Your task to perform on an android device: Open the stopwatch Image 0: 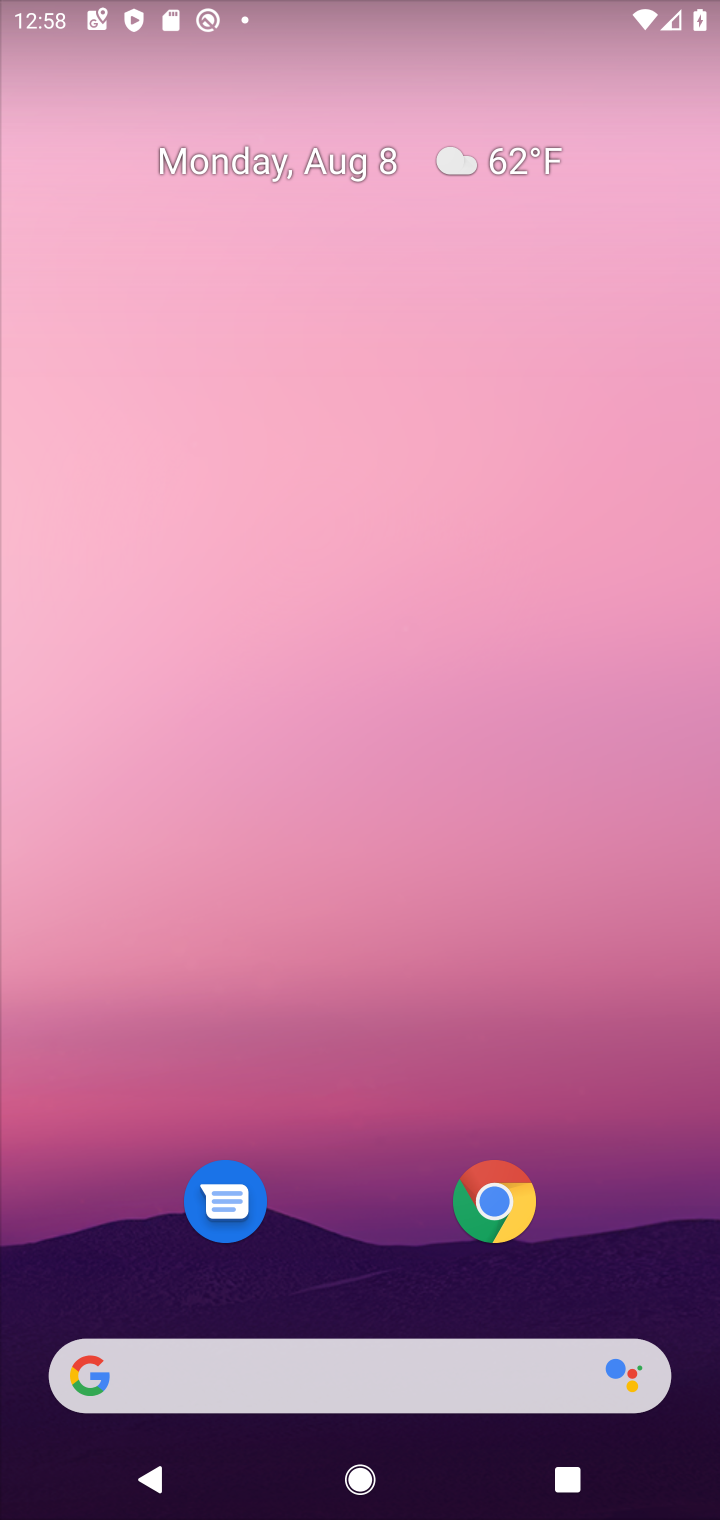
Step 0: press home button
Your task to perform on an android device: Open the stopwatch Image 1: 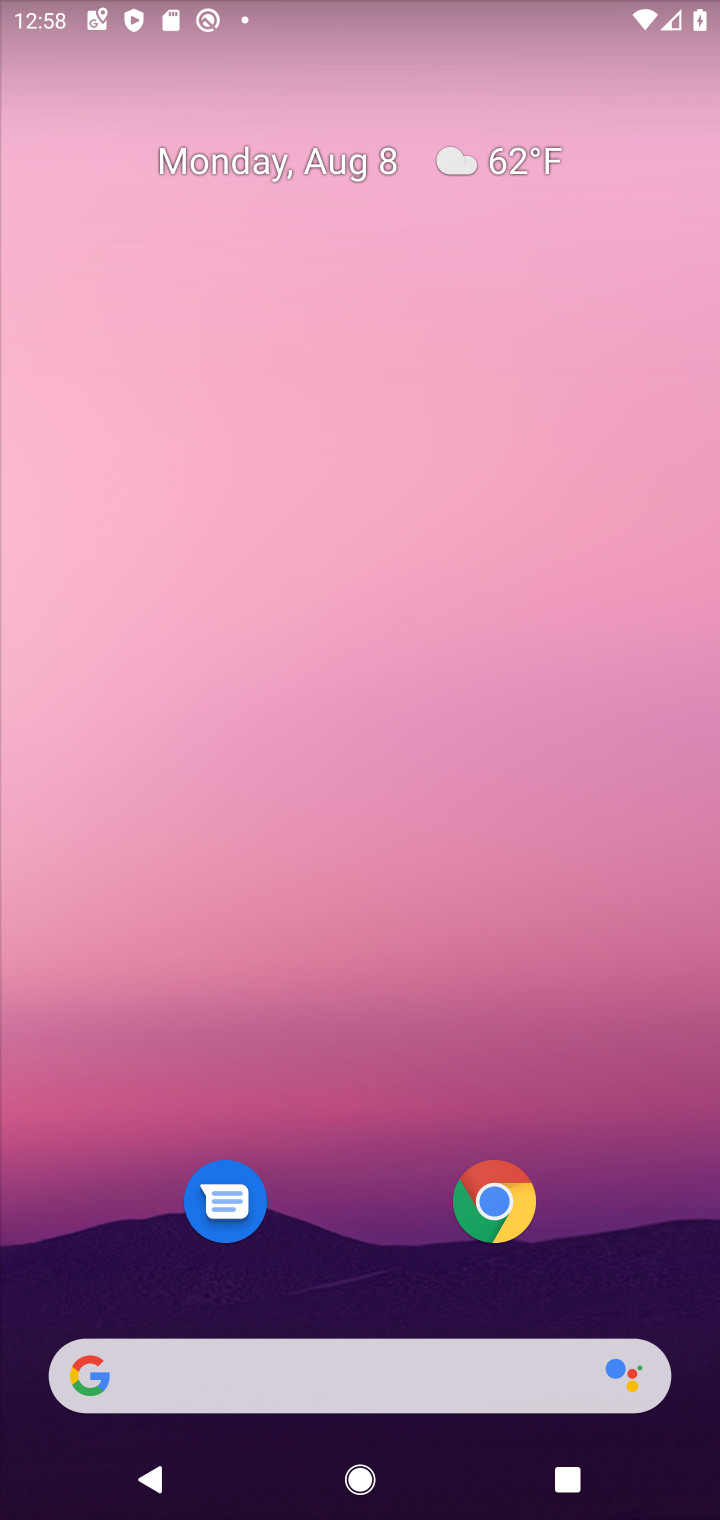
Step 1: drag from (437, 1219) to (317, 179)
Your task to perform on an android device: Open the stopwatch Image 2: 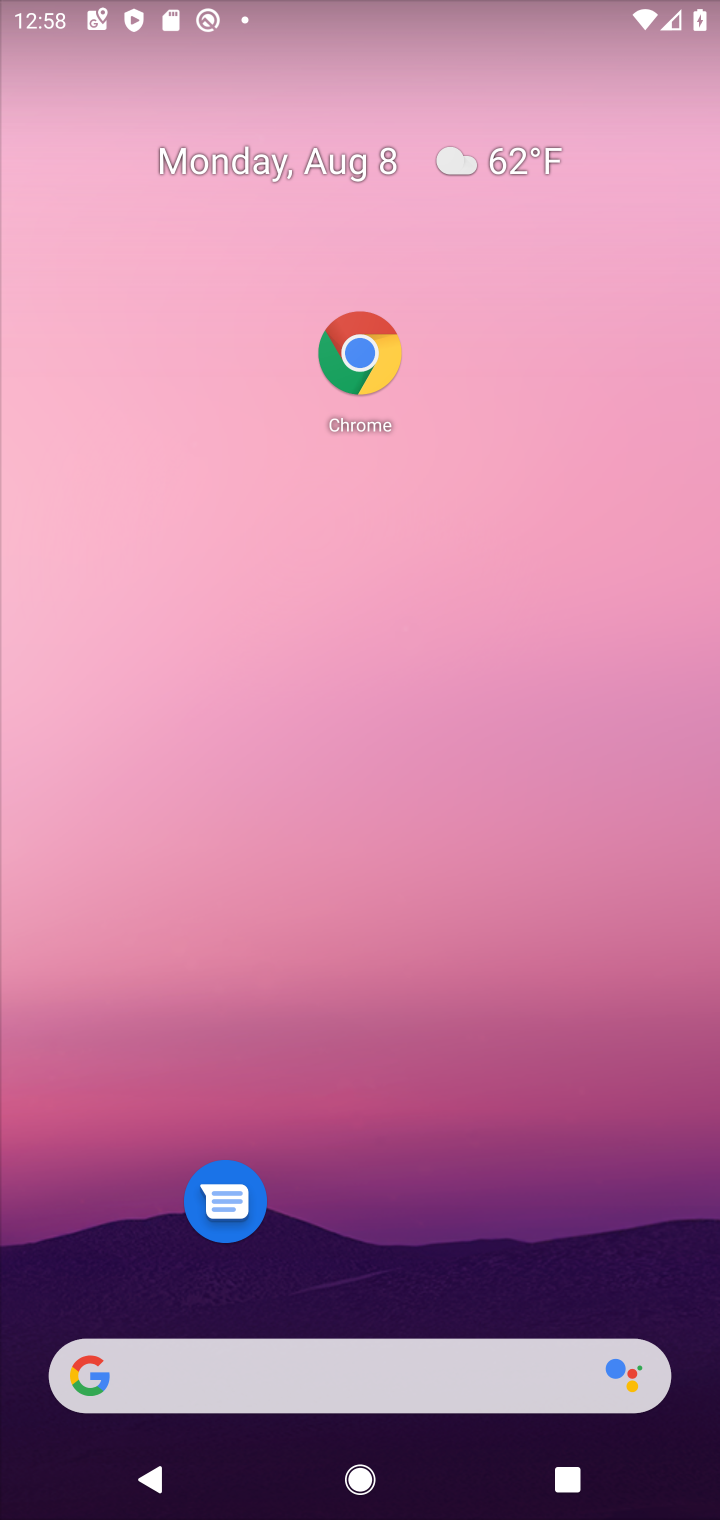
Step 2: drag from (418, 1387) to (199, 255)
Your task to perform on an android device: Open the stopwatch Image 3: 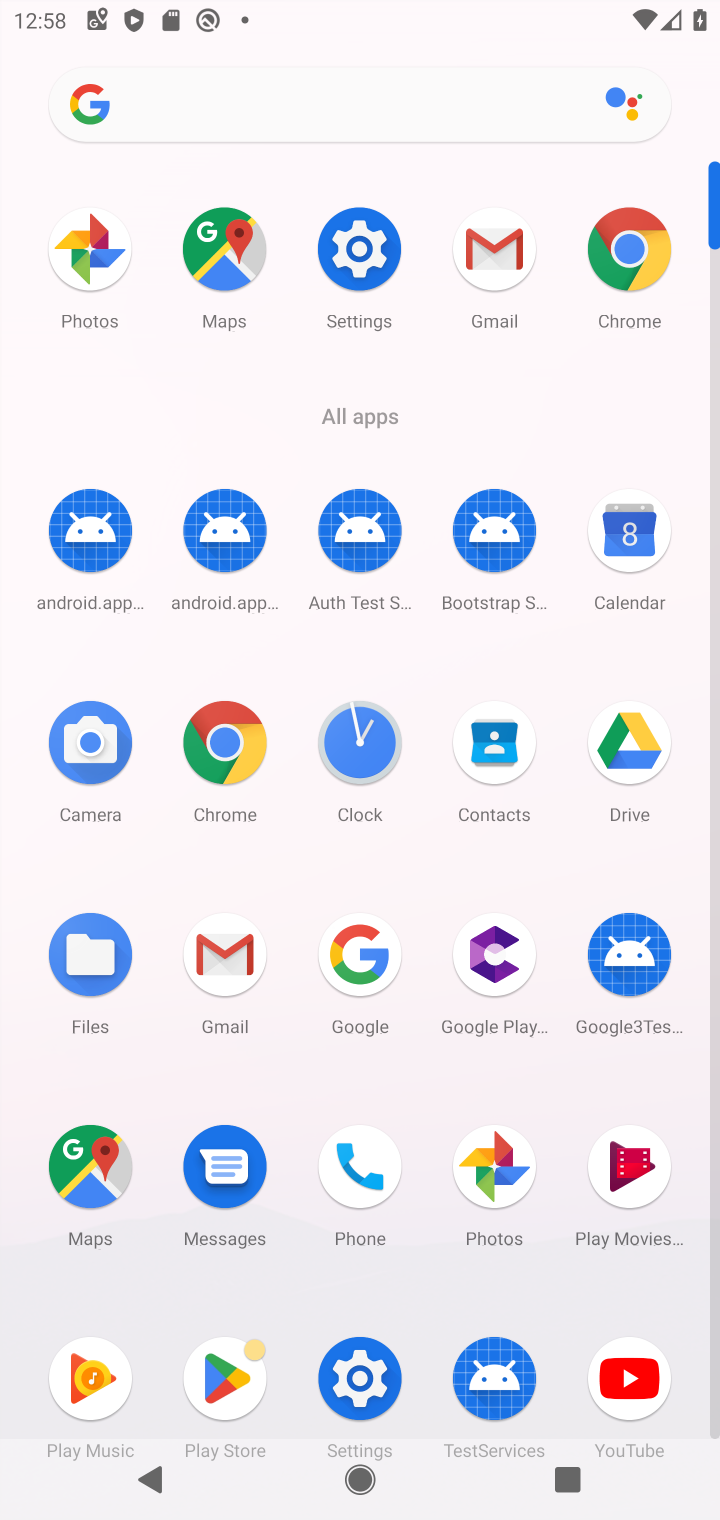
Step 3: click (381, 220)
Your task to perform on an android device: Open the stopwatch Image 4: 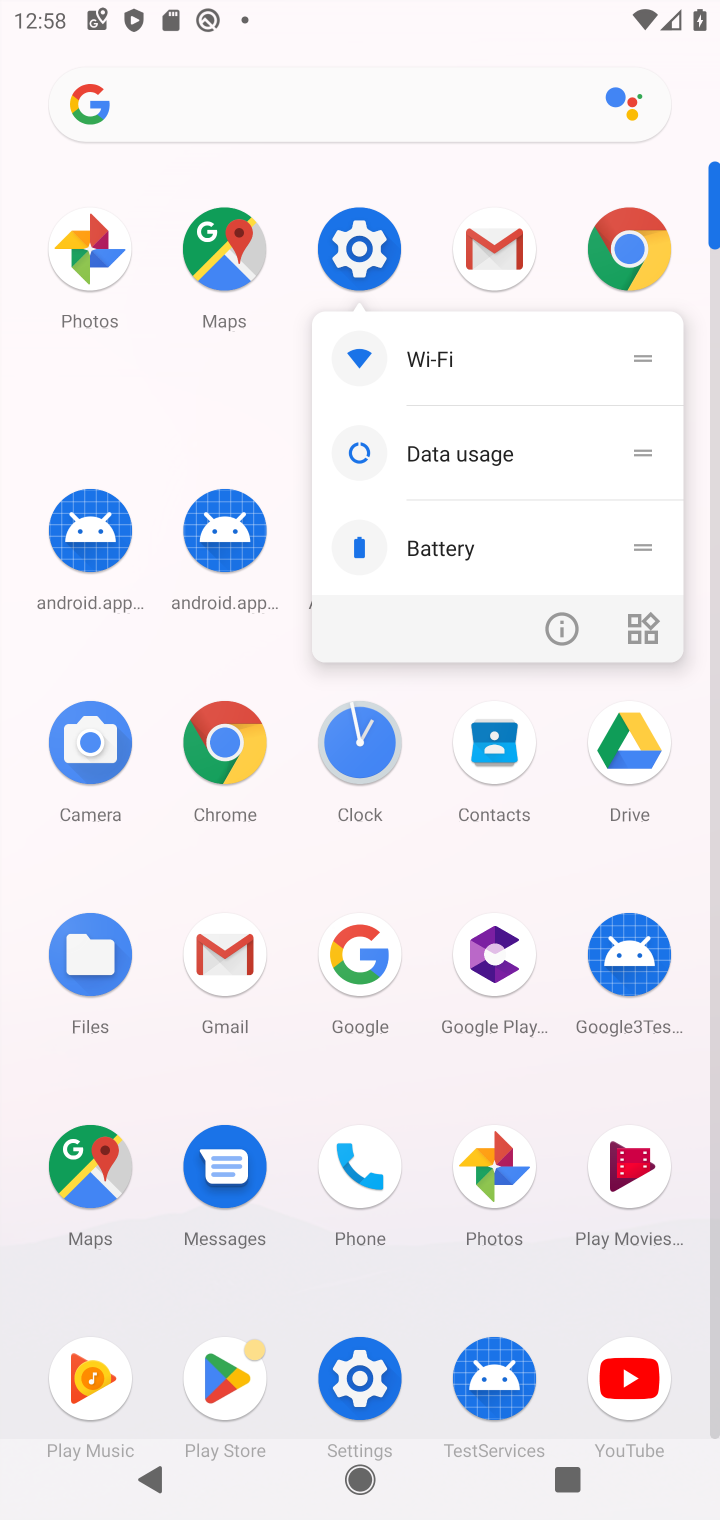
Step 4: click (355, 255)
Your task to perform on an android device: Open the stopwatch Image 5: 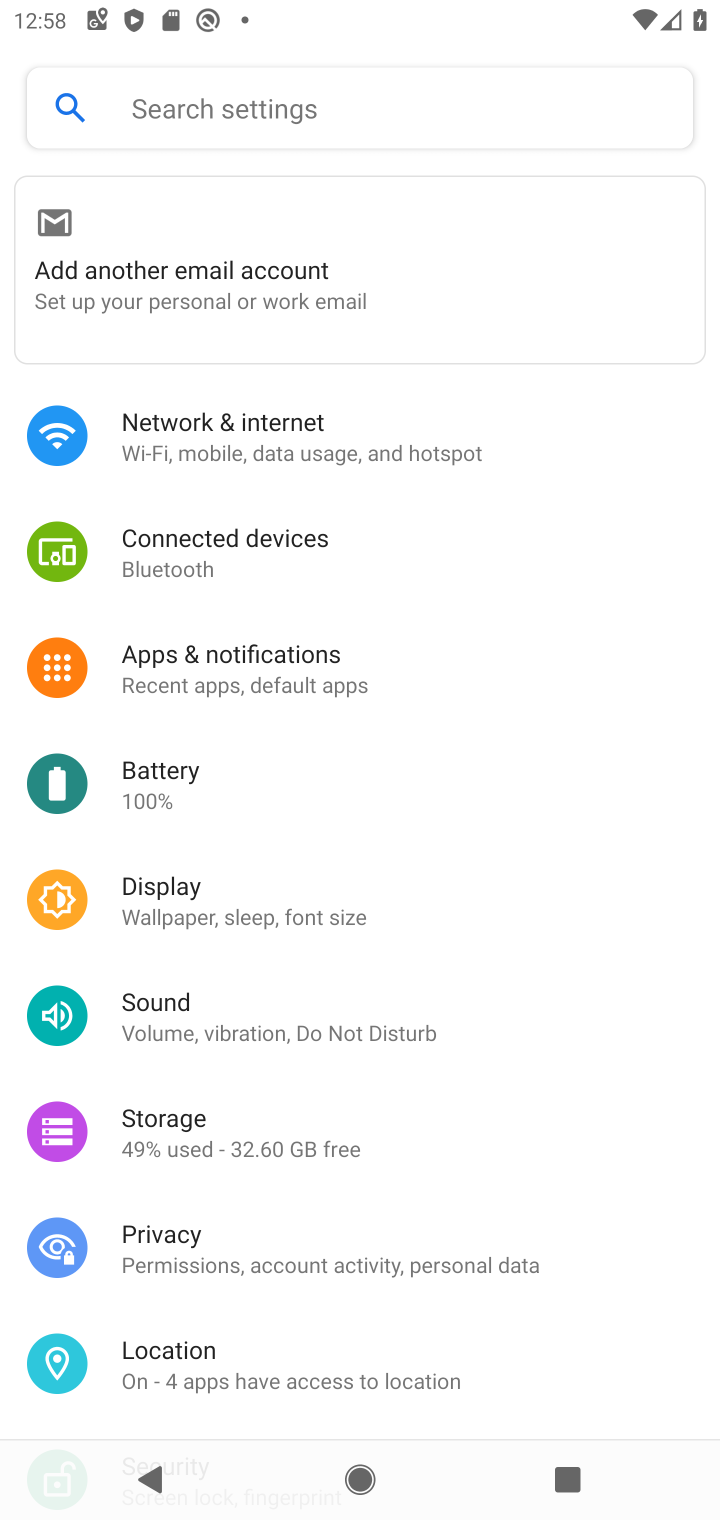
Step 5: click (306, 106)
Your task to perform on an android device: Open the stopwatch Image 6: 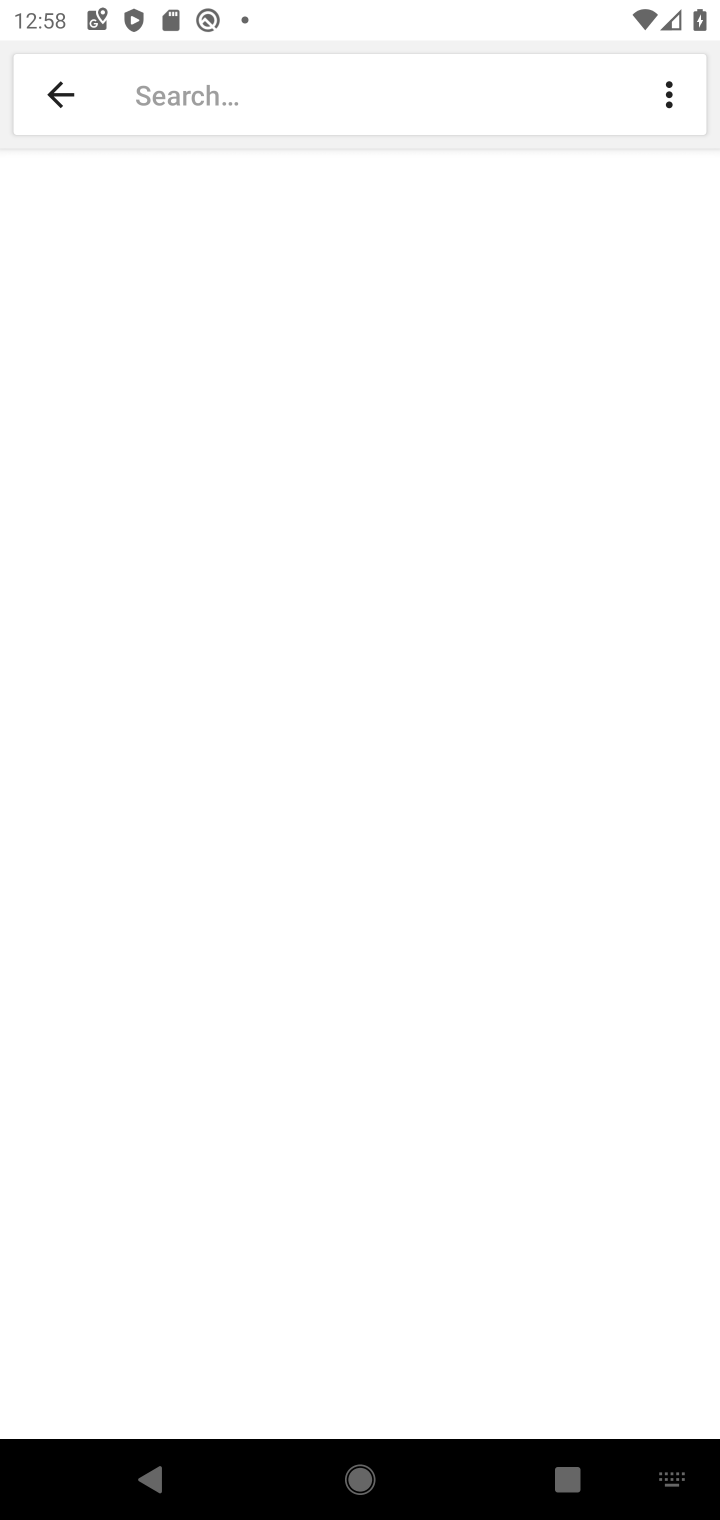
Step 6: click (665, 1492)
Your task to perform on an android device: Open the stopwatch Image 7: 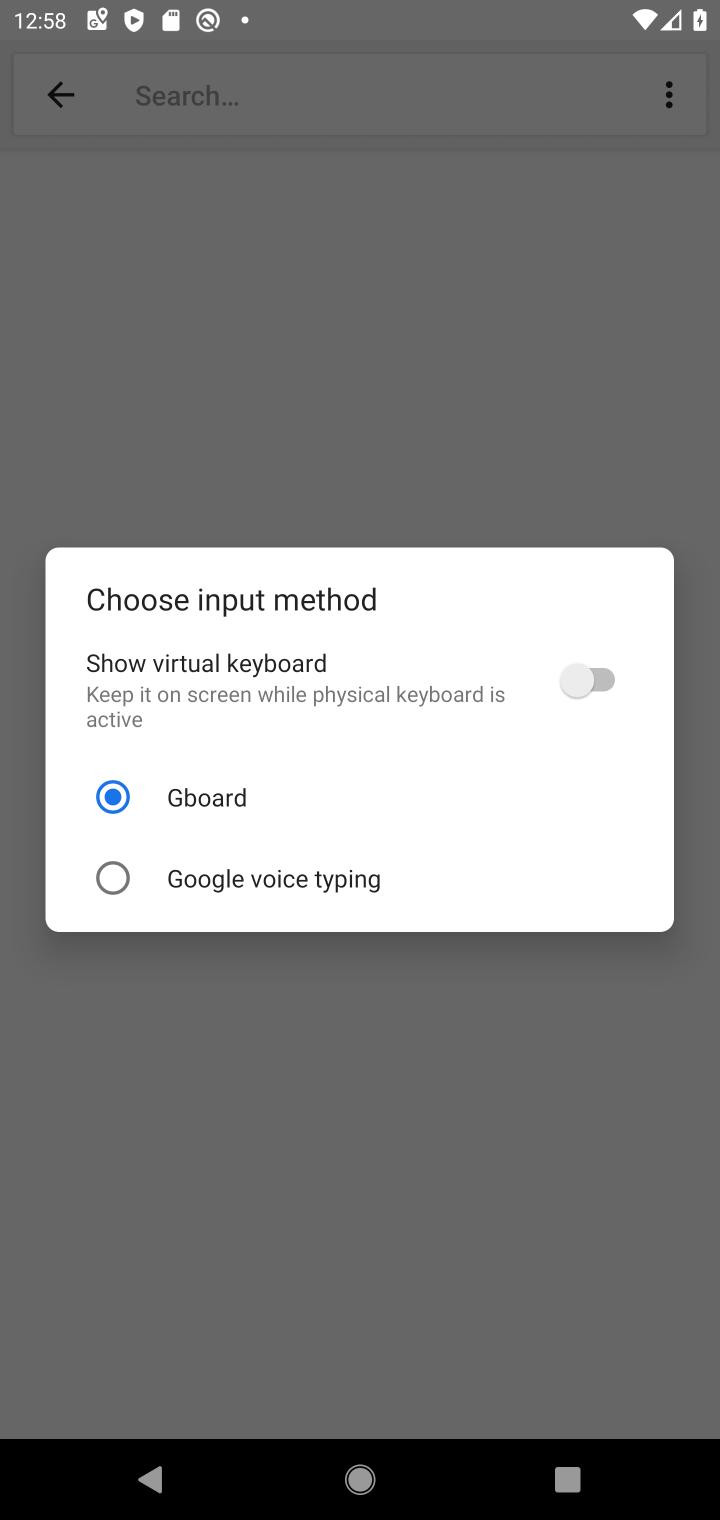
Step 7: click (608, 666)
Your task to perform on an android device: Open the stopwatch Image 8: 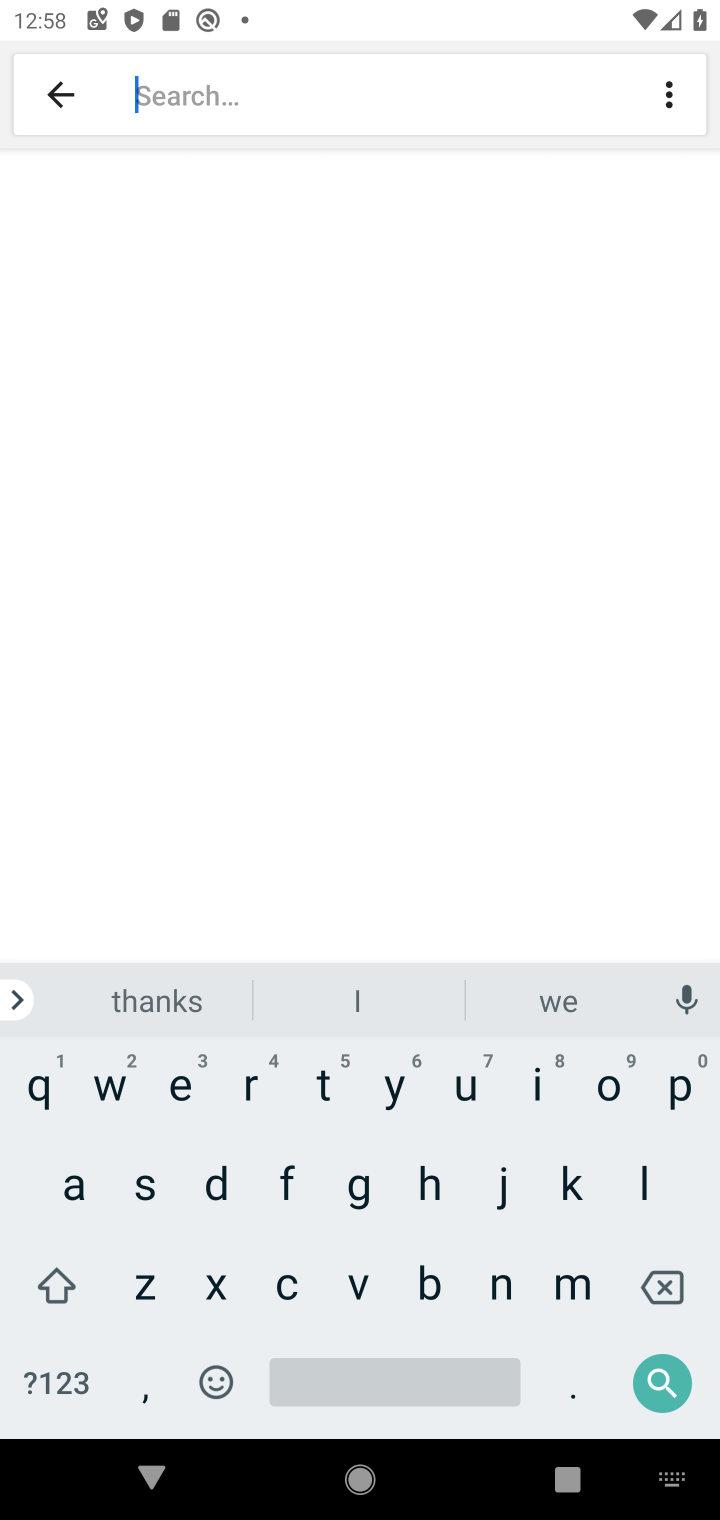
Step 8: press home button
Your task to perform on an android device: Open the stopwatch Image 9: 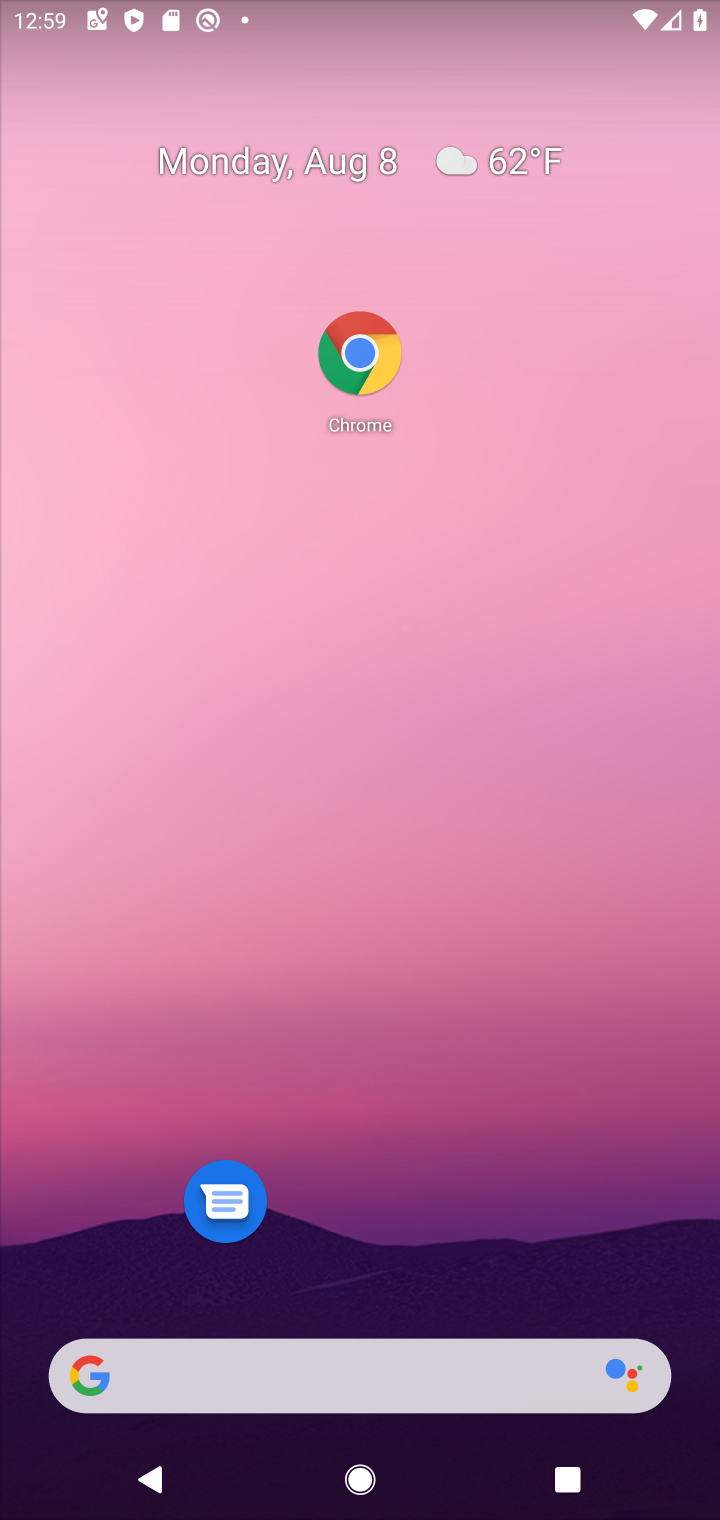
Step 9: drag from (481, 1345) to (408, 522)
Your task to perform on an android device: Open the stopwatch Image 10: 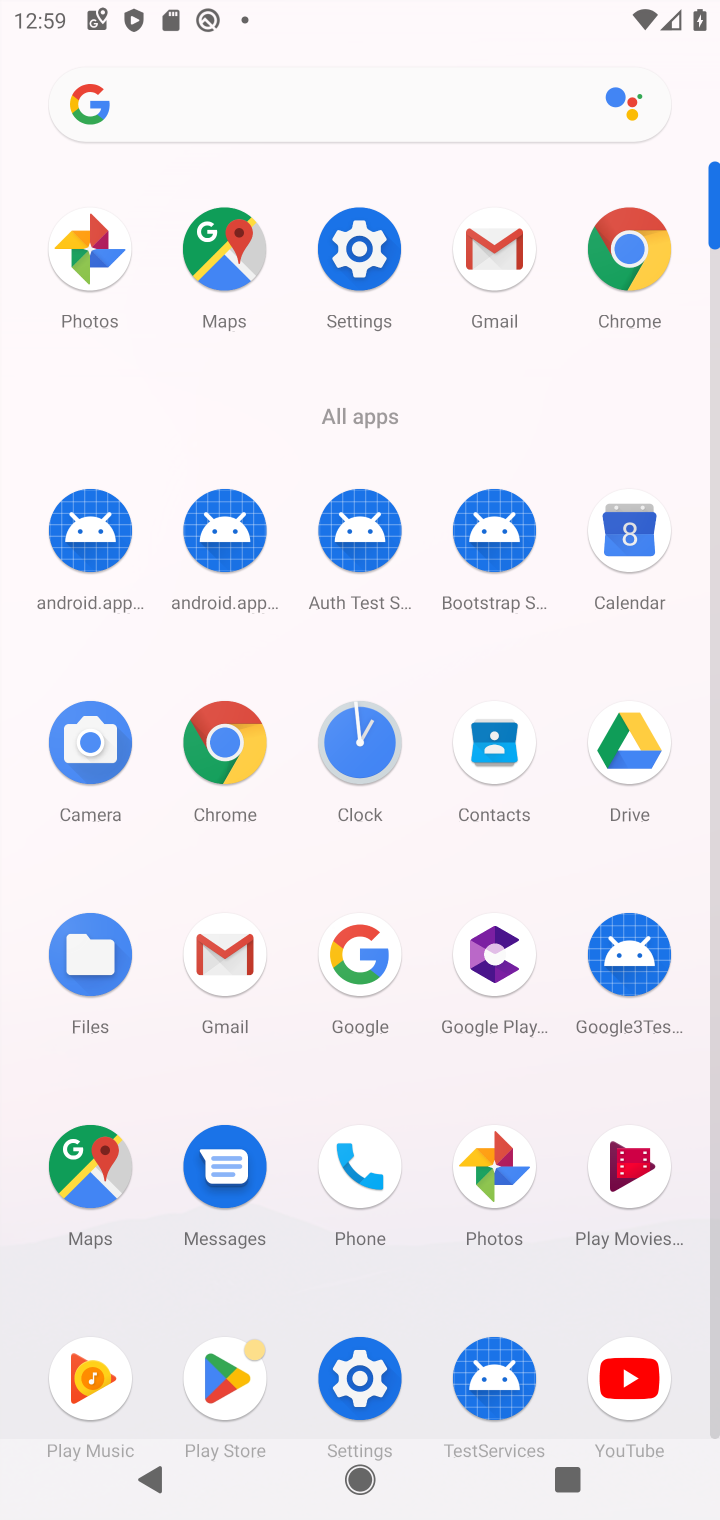
Step 10: click (376, 730)
Your task to perform on an android device: Open the stopwatch Image 11: 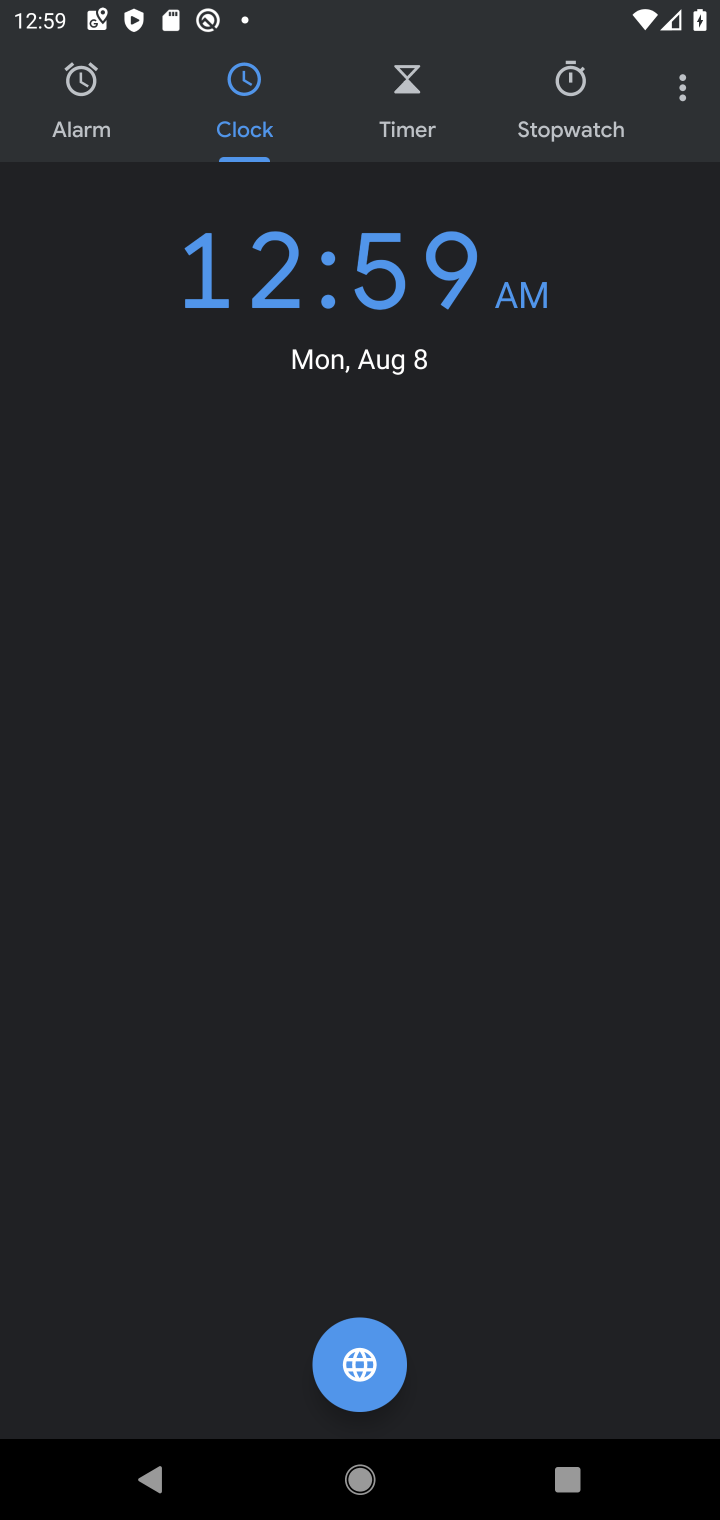
Step 11: click (548, 106)
Your task to perform on an android device: Open the stopwatch Image 12: 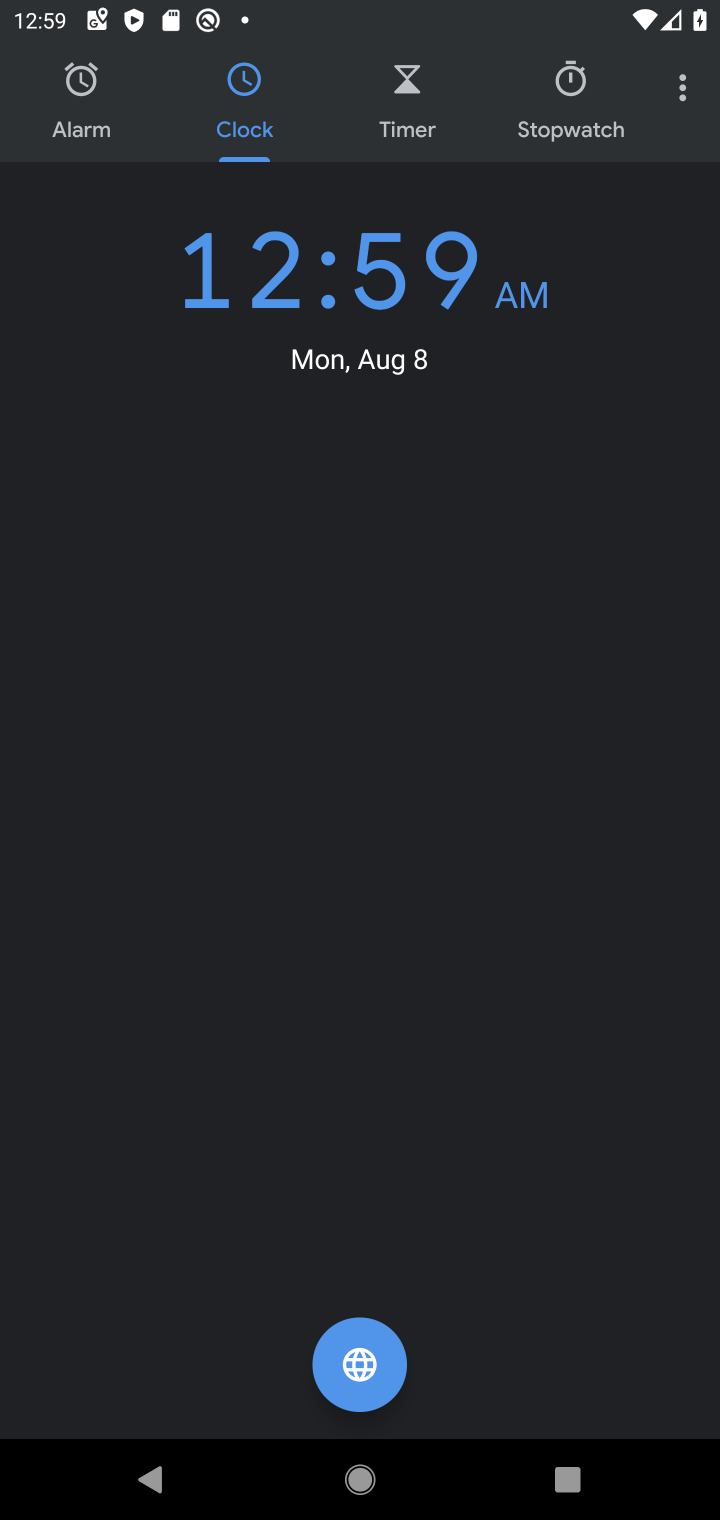
Step 12: click (581, 98)
Your task to perform on an android device: Open the stopwatch Image 13: 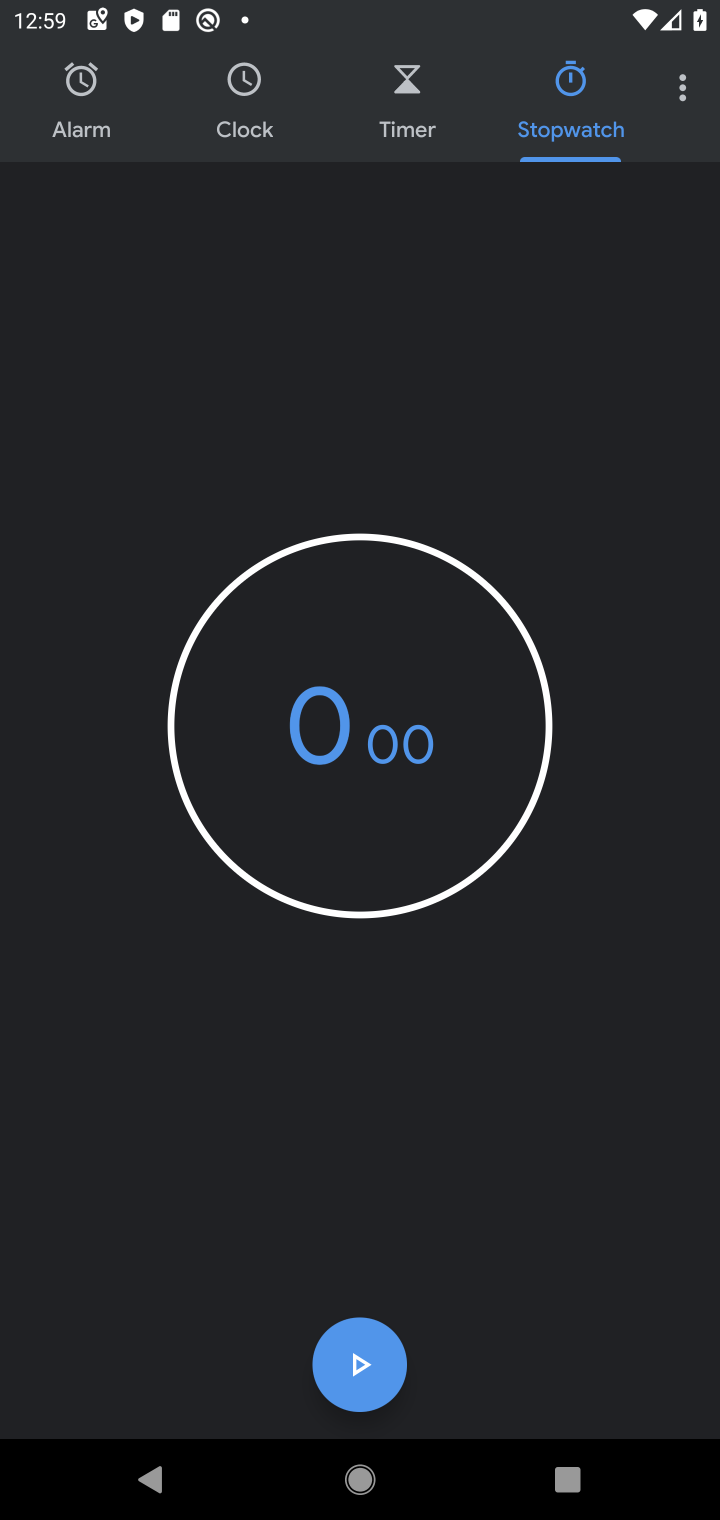
Step 13: click (331, 1364)
Your task to perform on an android device: Open the stopwatch Image 14: 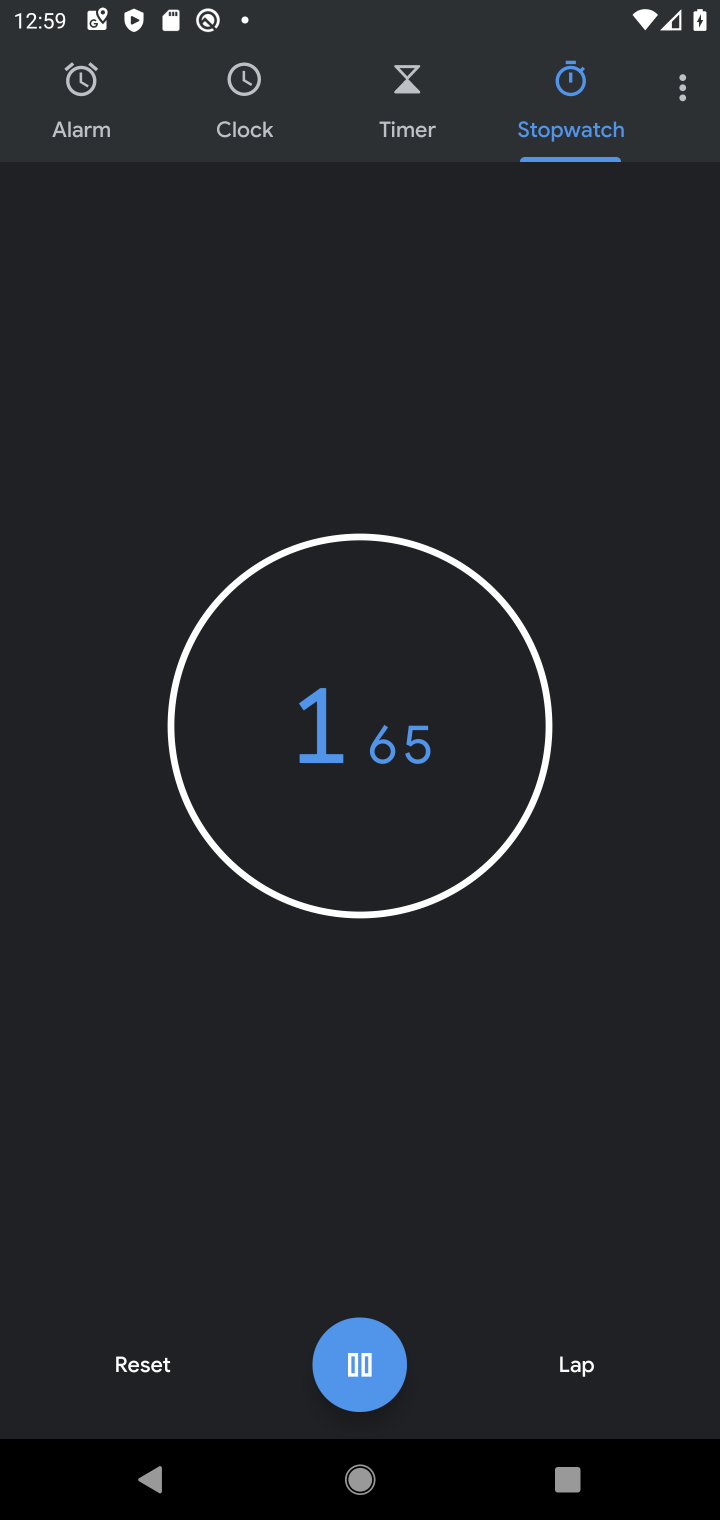
Step 14: click (331, 1364)
Your task to perform on an android device: Open the stopwatch Image 15: 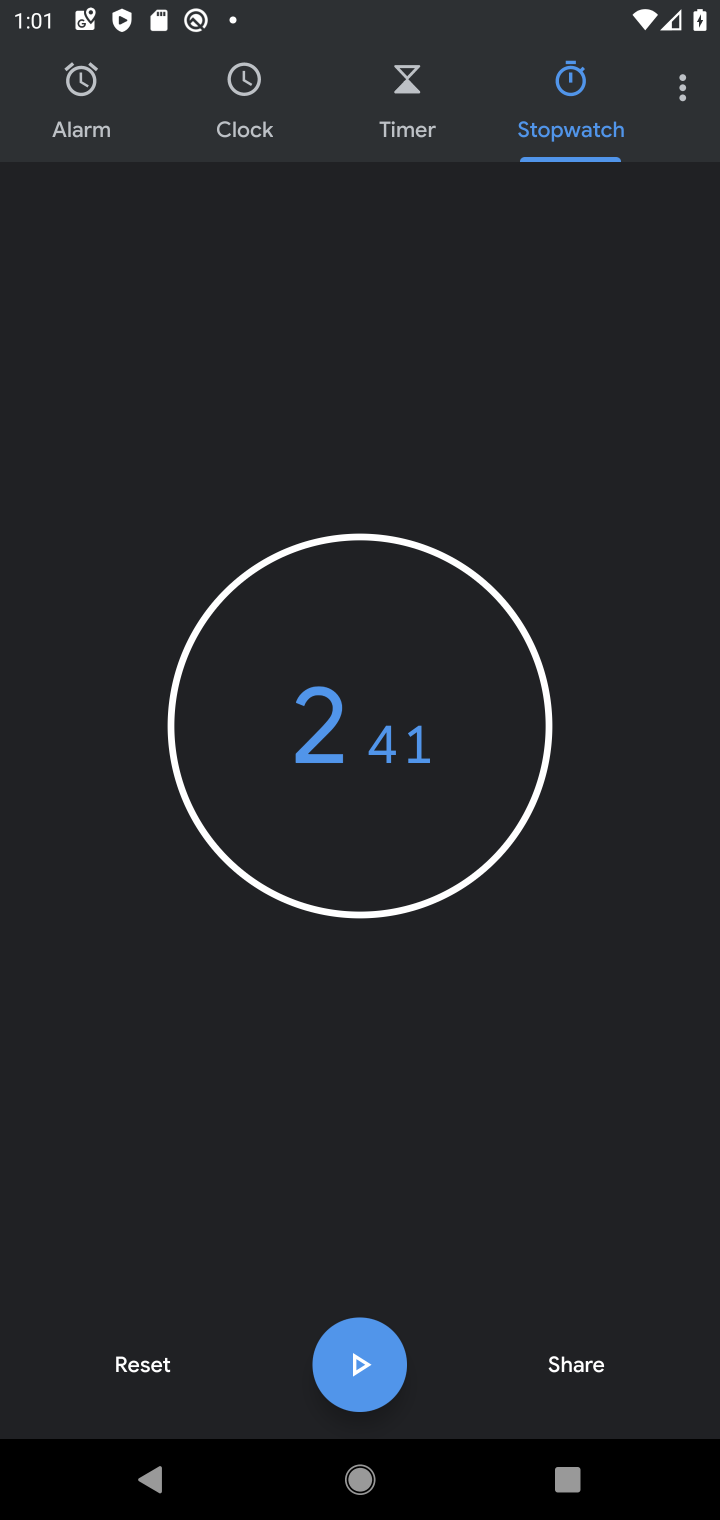
Step 15: task complete